Your task to perform on an android device: change your default location settings in chrome Image 0: 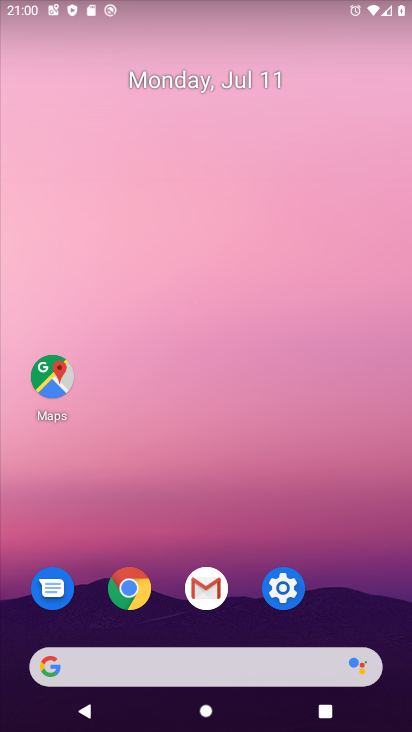
Step 0: click (144, 593)
Your task to perform on an android device: change your default location settings in chrome Image 1: 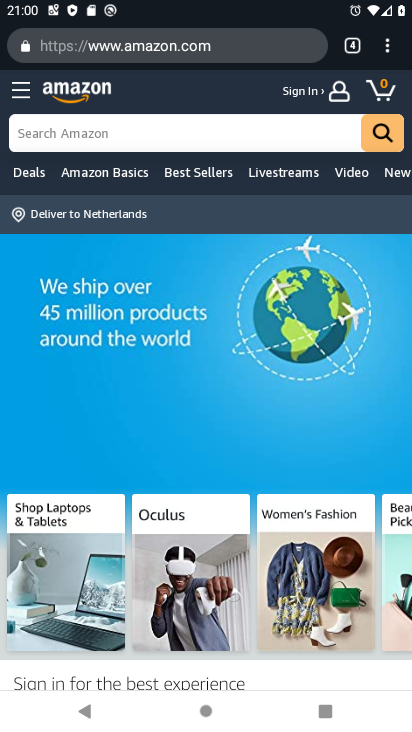
Step 1: click (393, 55)
Your task to perform on an android device: change your default location settings in chrome Image 2: 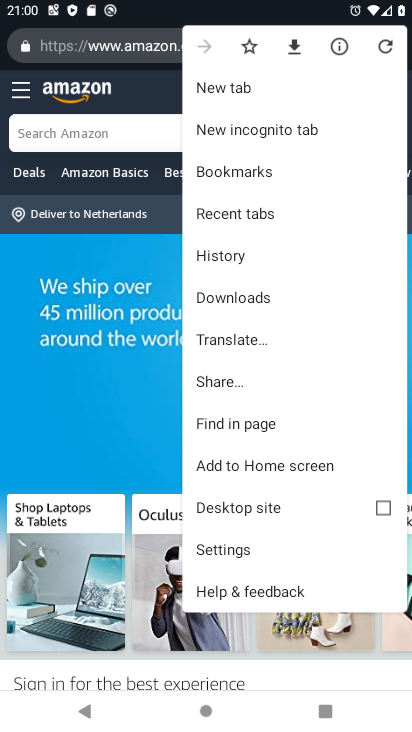
Step 2: click (226, 550)
Your task to perform on an android device: change your default location settings in chrome Image 3: 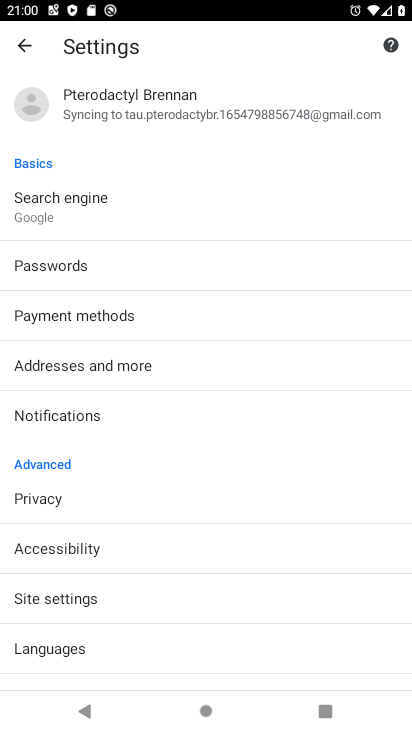
Step 3: click (84, 588)
Your task to perform on an android device: change your default location settings in chrome Image 4: 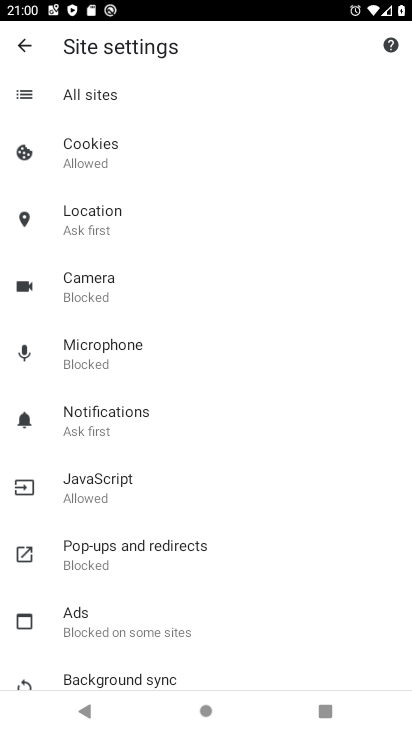
Step 4: click (140, 217)
Your task to perform on an android device: change your default location settings in chrome Image 5: 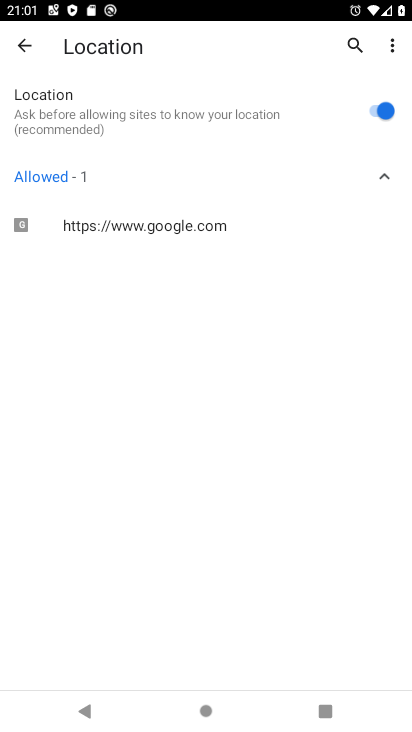
Step 5: click (379, 112)
Your task to perform on an android device: change your default location settings in chrome Image 6: 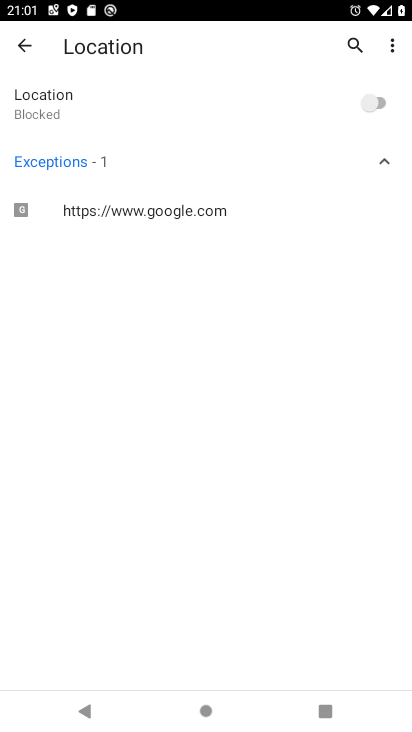
Step 6: task complete